Your task to perform on an android device: turn on translation in the chrome app Image 0: 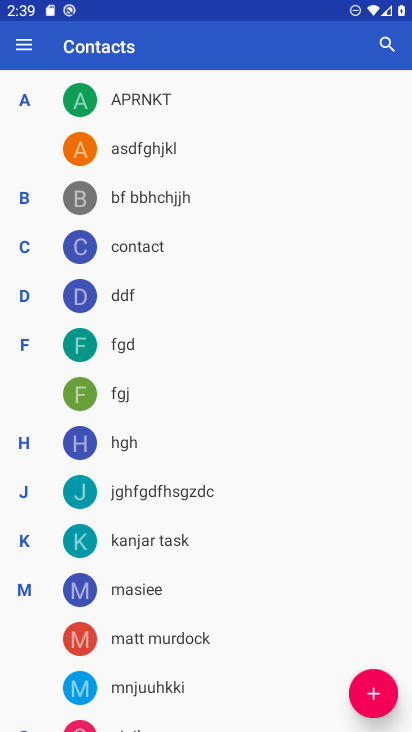
Step 0: press back button
Your task to perform on an android device: turn on translation in the chrome app Image 1: 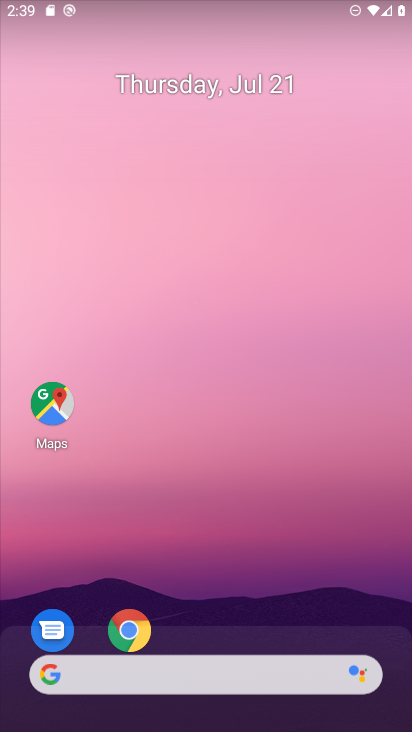
Step 1: click (125, 626)
Your task to perform on an android device: turn on translation in the chrome app Image 2: 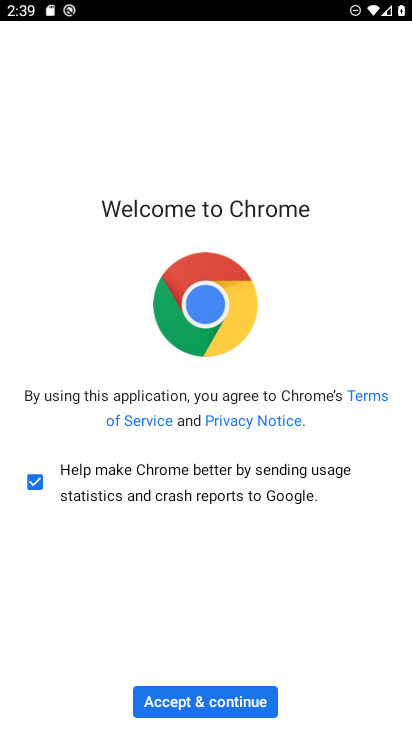
Step 2: click (188, 695)
Your task to perform on an android device: turn on translation in the chrome app Image 3: 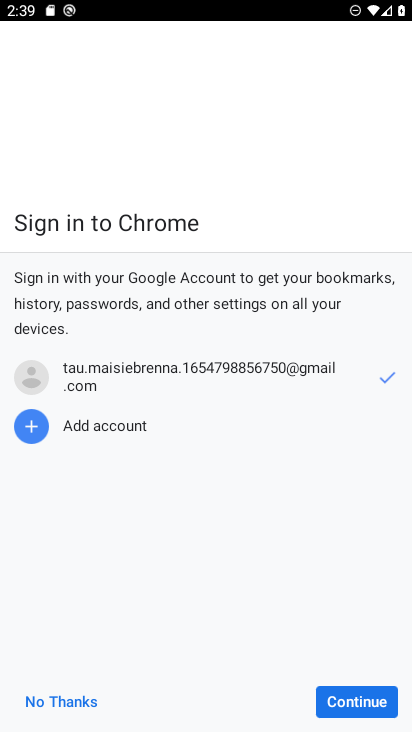
Step 3: click (380, 687)
Your task to perform on an android device: turn on translation in the chrome app Image 4: 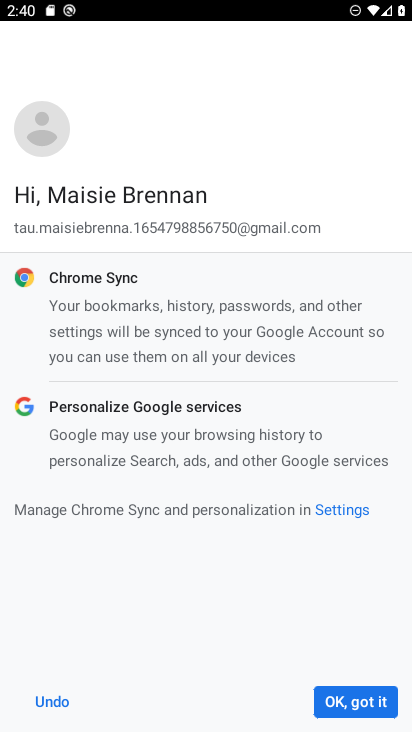
Step 4: click (350, 703)
Your task to perform on an android device: turn on translation in the chrome app Image 5: 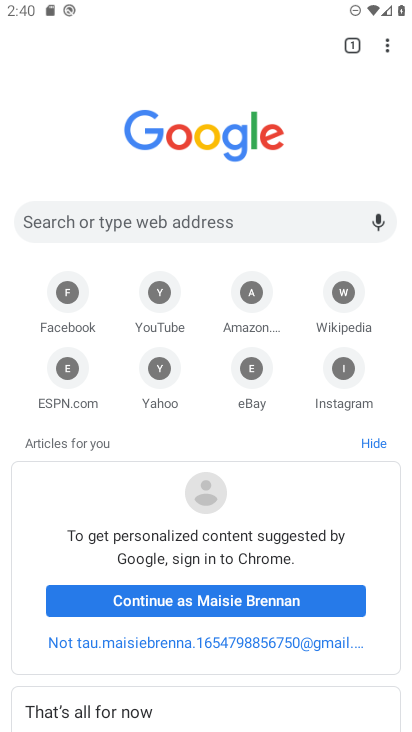
Step 5: drag from (388, 39) to (251, 385)
Your task to perform on an android device: turn on translation in the chrome app Image 6: 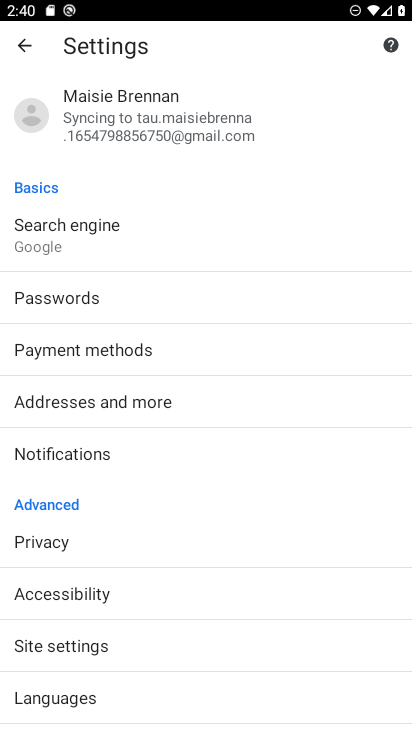
Step 6: click (76, 690)
Your task to perform on an android device: turn on translation in the chrome app Image 7: 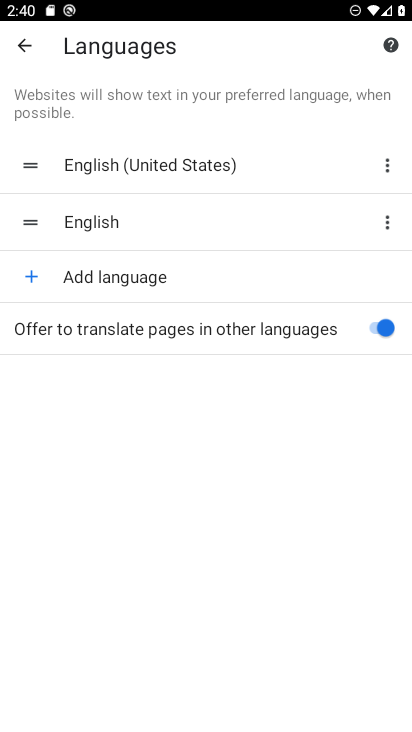
Step 7: task complete